Your task to perform on an android device: Show me productivity apps on the Play Store Image 0: 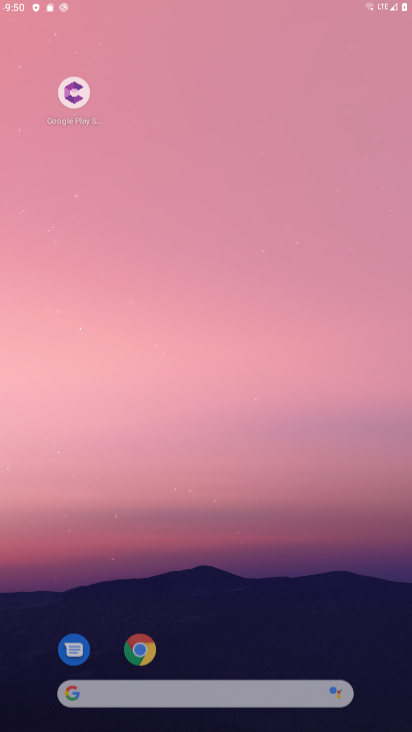
Step 0: click (385, 78)
Your task to perform on an android device: Show me productivity apps on the Play Store Image 1: 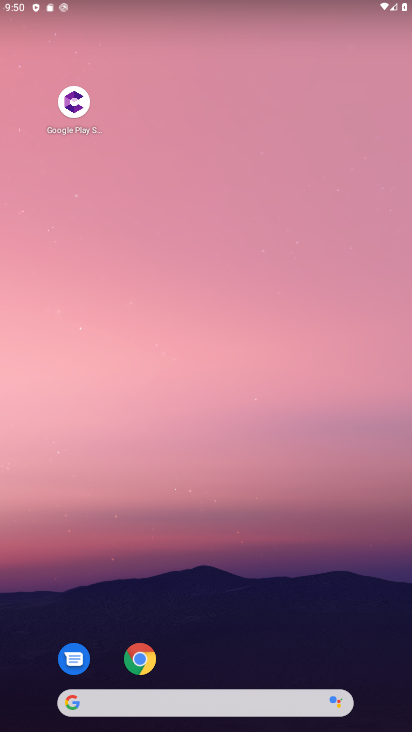
Step 1: drag from (265, 658) to (211, 257)
Your task to perform on an android device: Show me productivity apps on the Play Store Image 2: 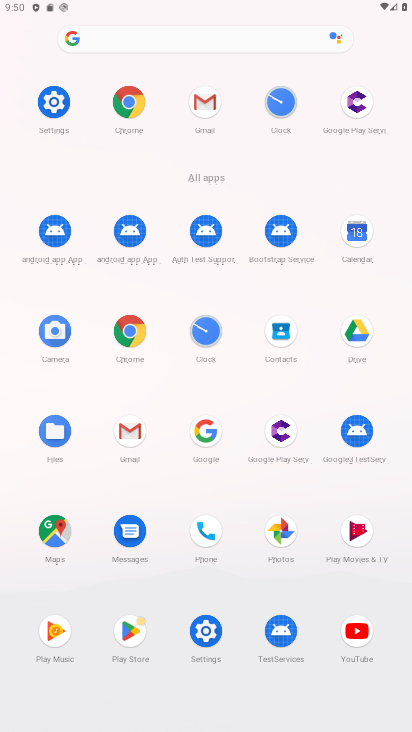
Step 2: click (133, 626)
Your task to perform on an android device: Show me productivity apps on the Play Store Image 3: 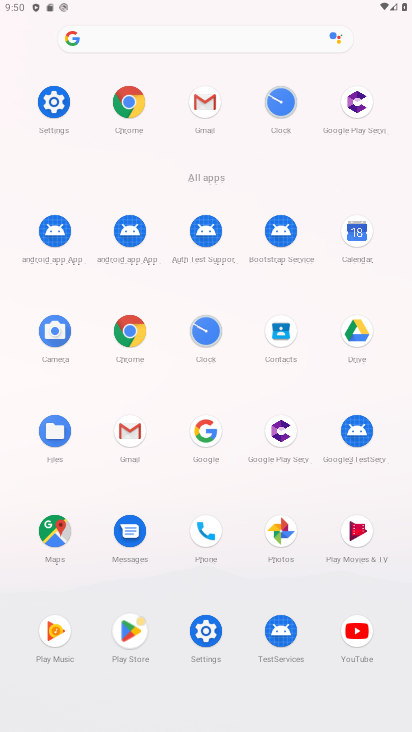
Step 3: click (134, 626)
Your task to perform on an android device: Show me productivity apps on the Play Store Image 4: 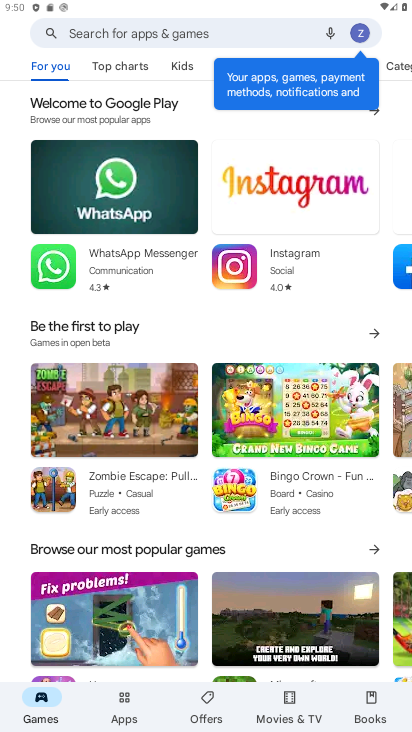
Step 4: click (109, 24)
Your task to perform on an android device: Show me productivity apps on the Play Store Image 5: 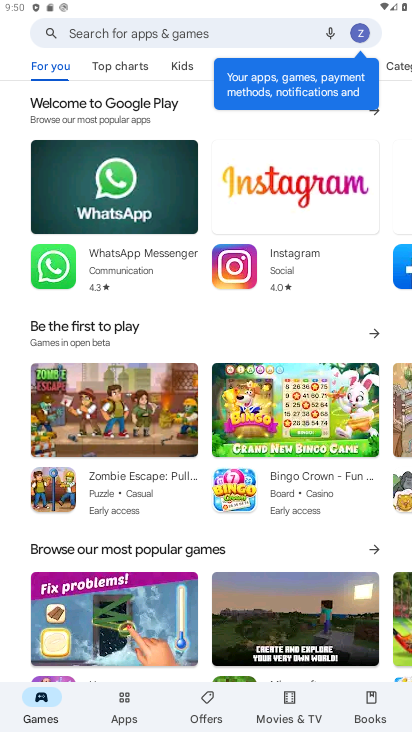
Step 5: click (109, 24)
Your task to perform on an android device: Show me productivity apps on the Play Store Image 6: 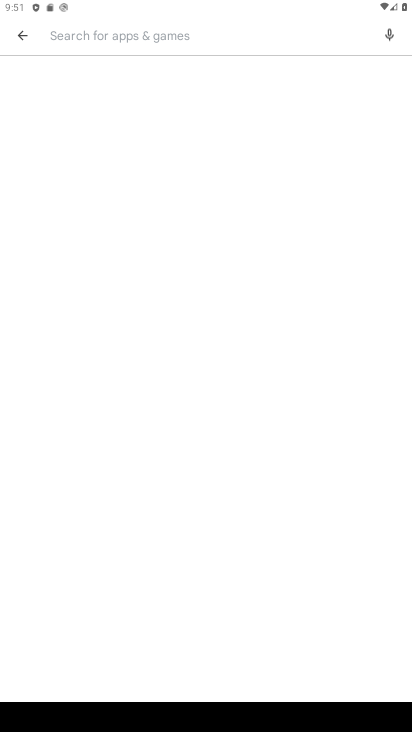
Step 6: type "productivityapps"
Your task to perform on an android device: Show me productivity apps on the Play Store Image 7: 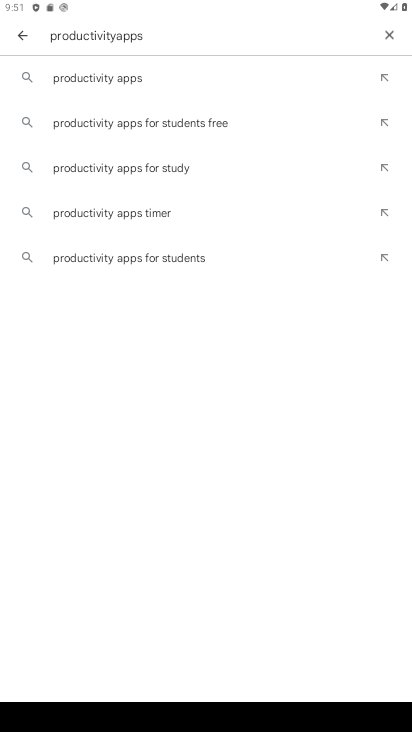
Step 7: click (158, 88)
Your task to perform on an android device: Show me productivity apps on the Play Store Image 8: 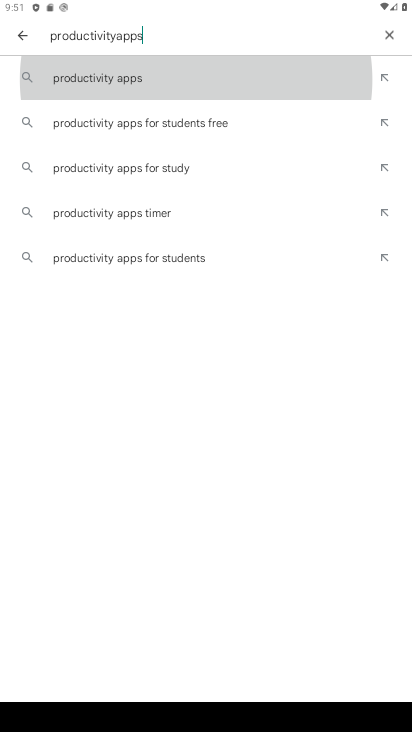
Step 8: click (158, 88)
Your task to perform on an android device: Show me productivity apps on the Play Store Image 9: 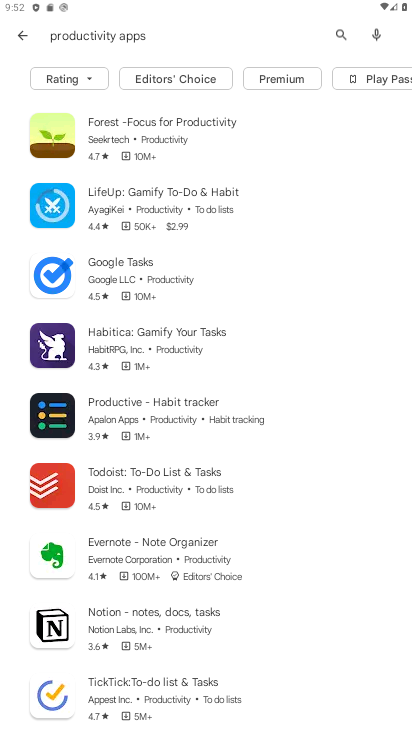
Step 9: task complete